Your task to perform on an android device: Go to Maps Image 0: 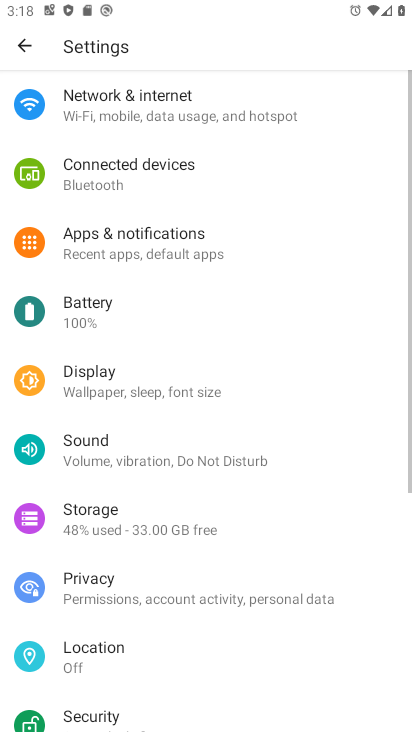
Step 0: press home button
Your task to perform on an android device: Go to Maps Image 1: 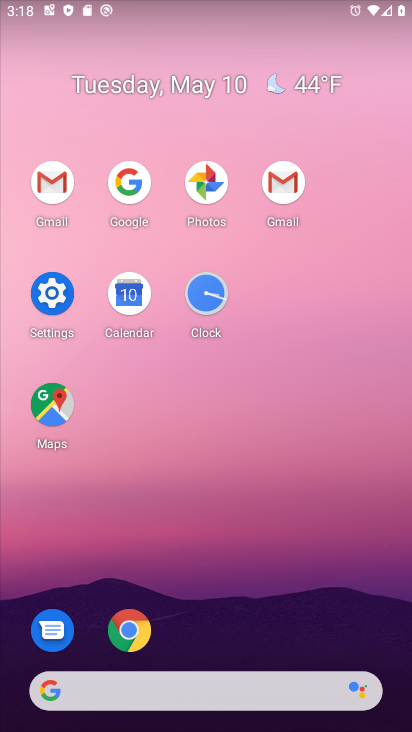
Step 1: click (55, 402)
Your task to perform on an android device: Go to Maps Image 2: 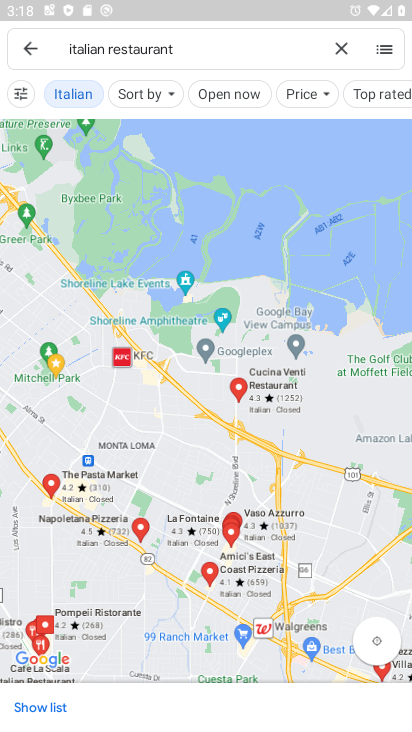
Step 2: task complete